Your task to perform on an android device: delete browsing data in the chrome app Image 0: 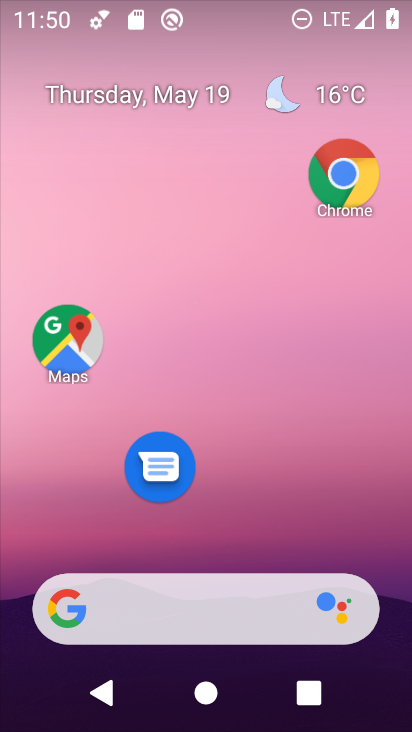
Step 0: drag from (264, 548) to (268, 230)
Your task to perform on an android device: delete browsing data in the chrome app Image 1: 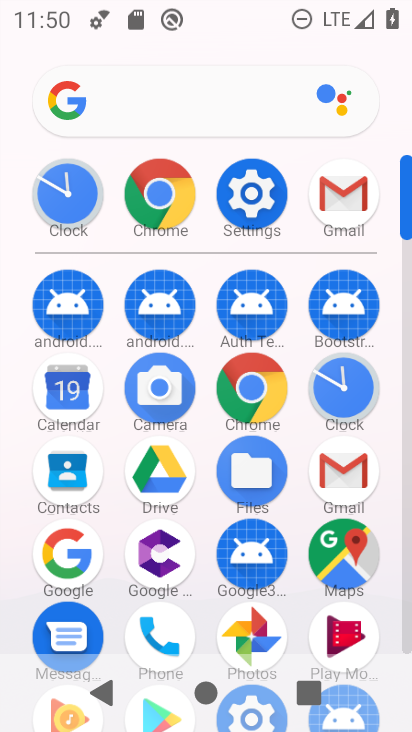
Step 1: click (265, 388)
Your task to perform on an android device: delete browsing data in the chrome app Image 2: 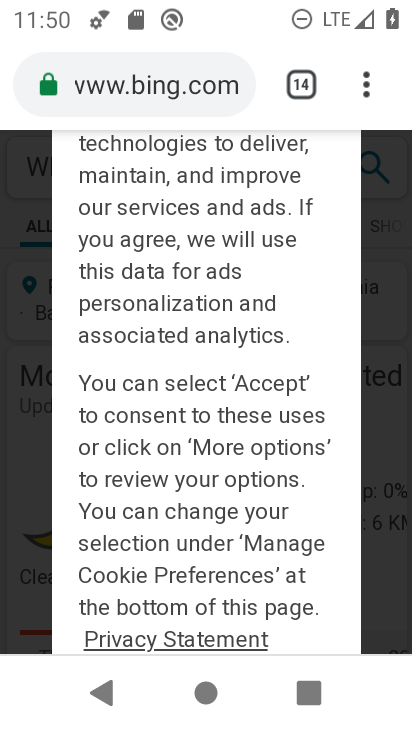
Step 2: click (379, 75)
Your task to perform on an android device: delete browsing data in the chrome app Image 3: 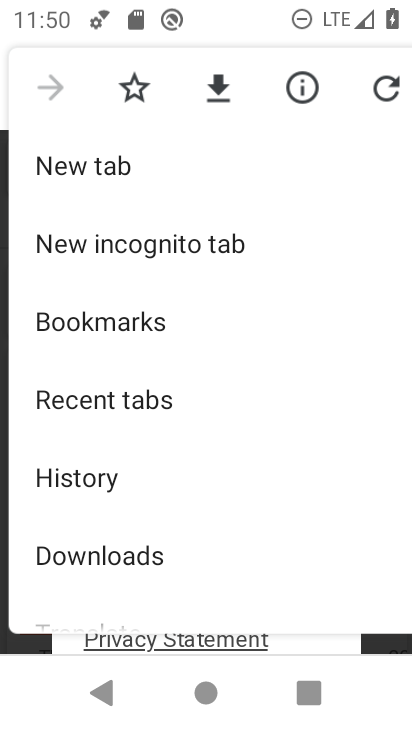
Step 3: drag from (185, 529) to (254, 191)
Your task to perform on an android device: delete browsing data in the chrome app Image 4: 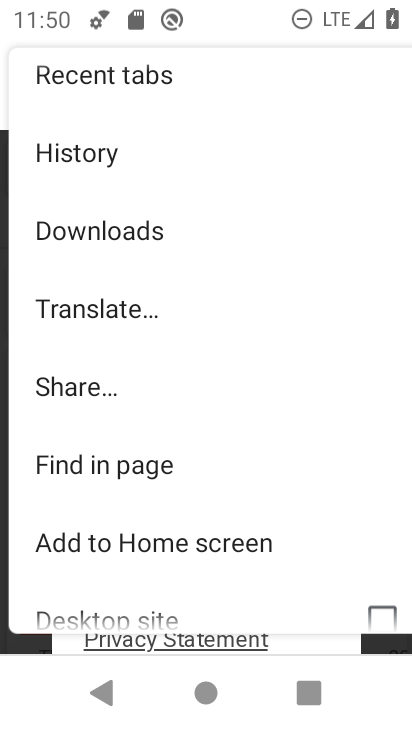
Step 4: drag from (153, 579) to (253, 281)
Your task to perform on an android device: delete browsing data in the chrome app Image 5: 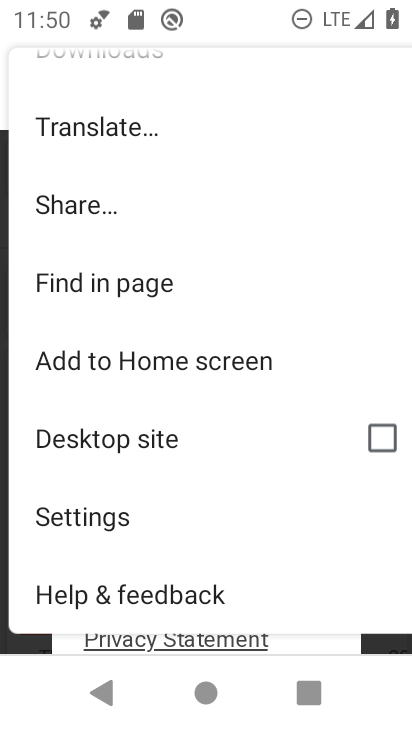
Step 5: click (111, 503)
Your task to perform on an android device: delete browsing data in the chrome app Image 6: 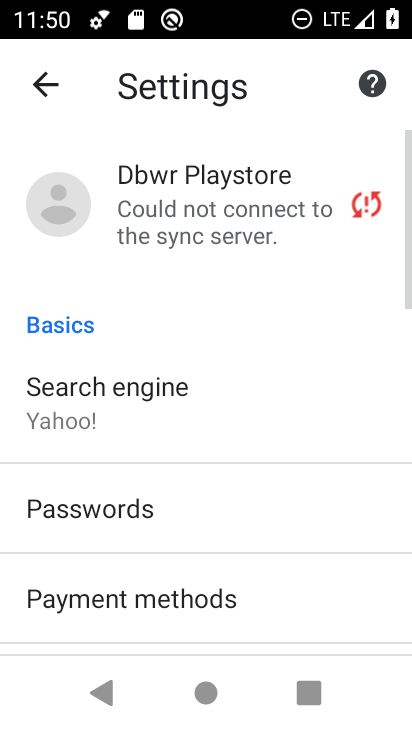
Step 6: press back button
Your task to perform on an android device: delete browsing data in the chrome app Image 7: 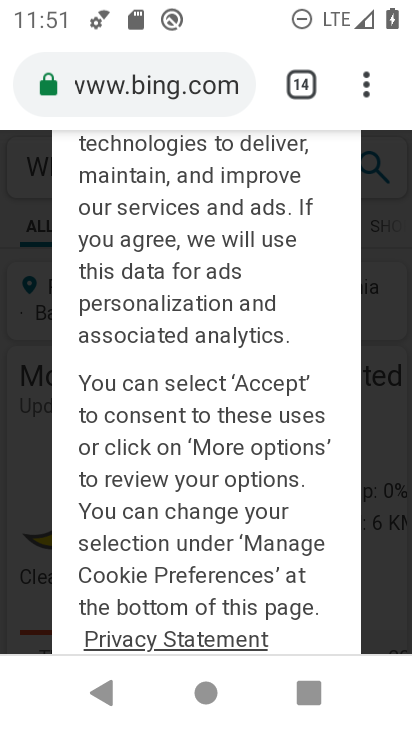
Step 7: click (379, 68)
Your task to perform on an android device: delete browsing data in the chrome app Image 8: 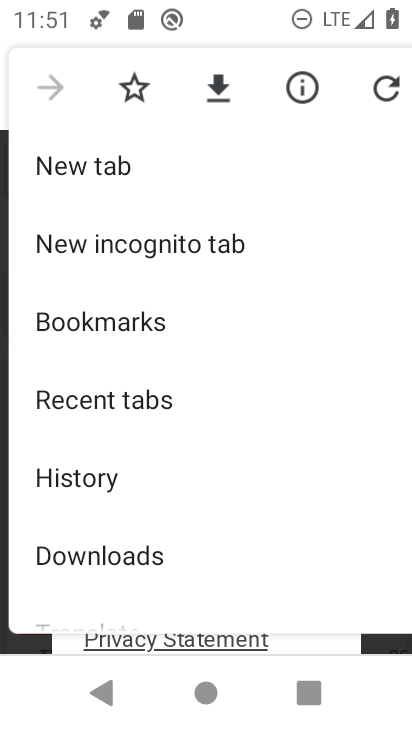
Step 8: click (163, 326)
Your task to perform on an android device: delete browsing data in the chrome app Image 9: 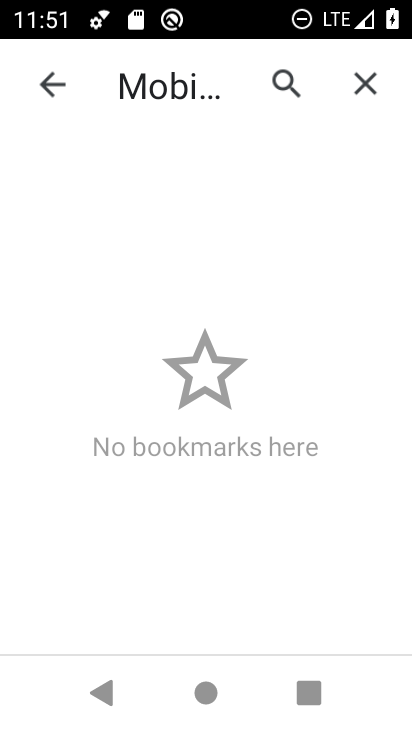
Step 9: click (399, 92)
Your task to perform on an android device: delete browsing data in the chrome app Image 10: 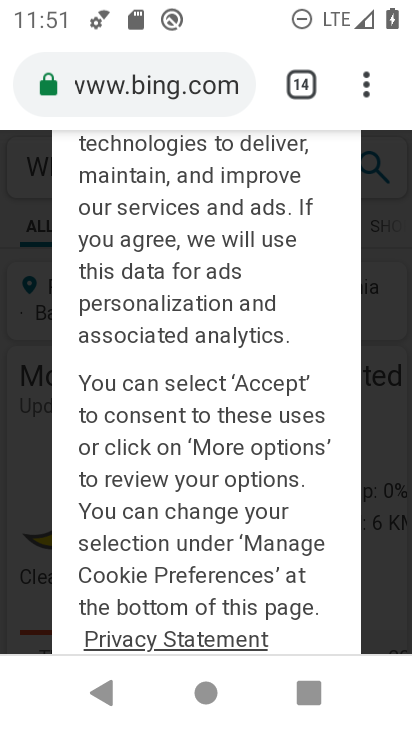
Step 10: click (372, 97)
Your task to perform on an android device: delete browsing data in the chrome app Image 11: 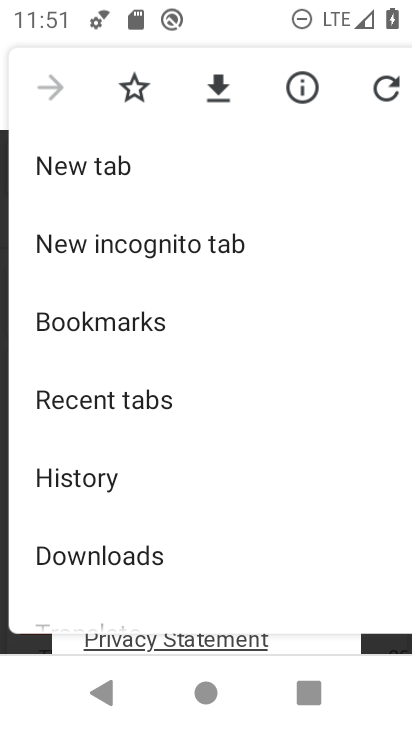
Step 11: click (187, 457)
Your task to perform on an android device: delete browsing data in the chrome app Image 12: 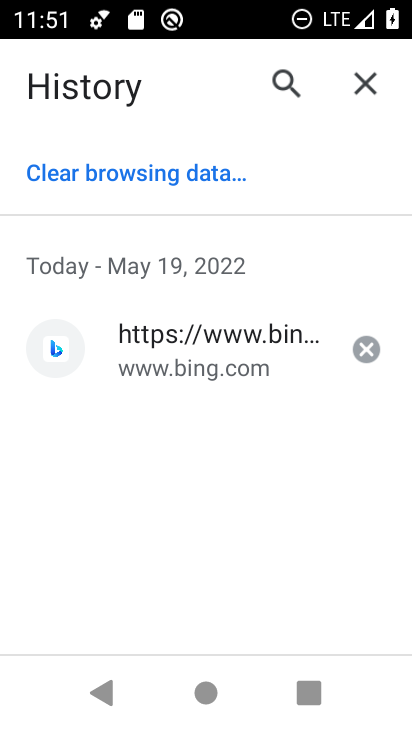
Step 12: click (195, 156)
Your task to perform on an android device: delete browsing data in the chrome app Image 13: 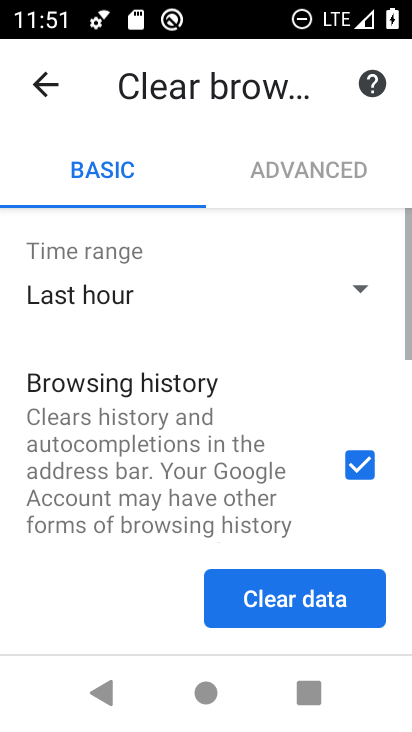
Step 13: click (285, 557)
Your task to perform on an android device: delete browsing data in the chrome app Image 14: 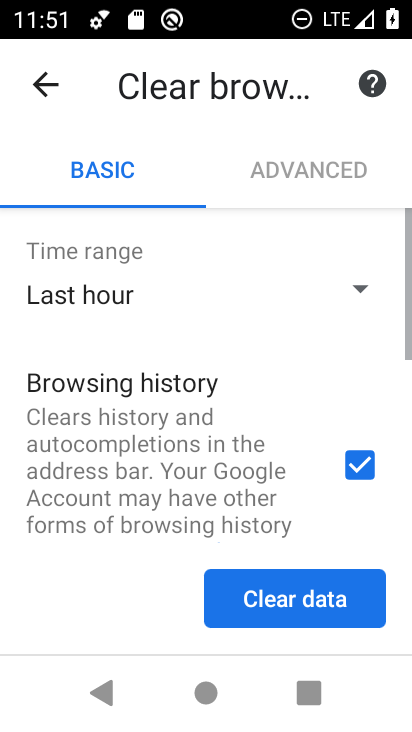
Step 14: click (295, 577)
Your task to perform on an android device: delete browsing data in the chrome app Image 15: 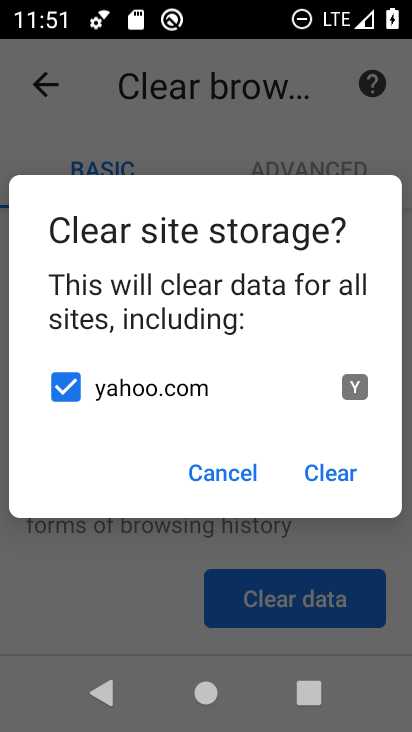
Step 15: click (330, 462)
Your task to perform on an android device: delete browsing data in the chrome app Image 16: 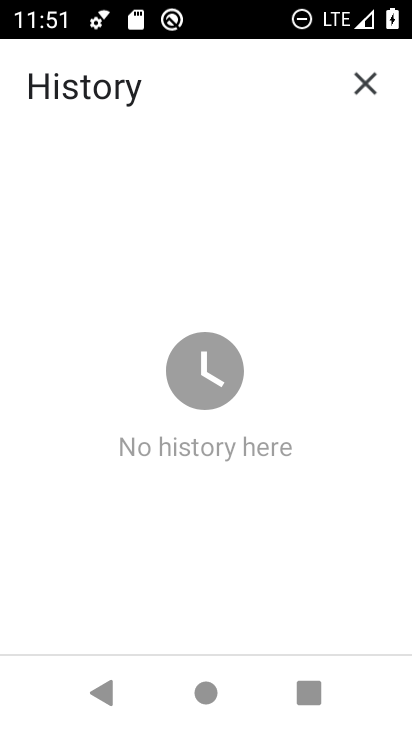
Step 16: task complete